Your task to perform on an android device: turn off wifi Image 0: 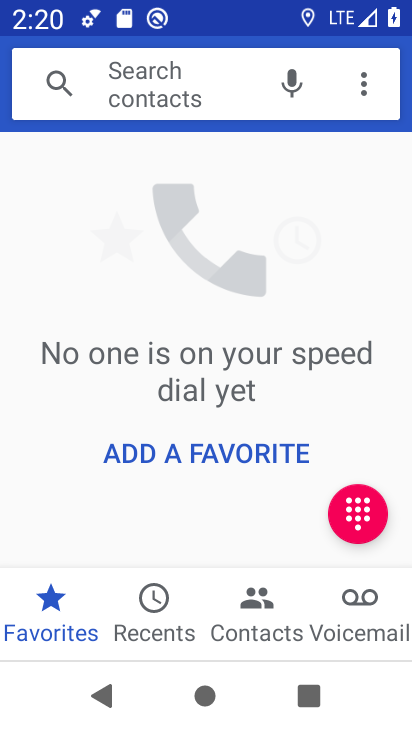
Step 0: press home button
Your task to perform on an android device: turn off wifi Image 1: 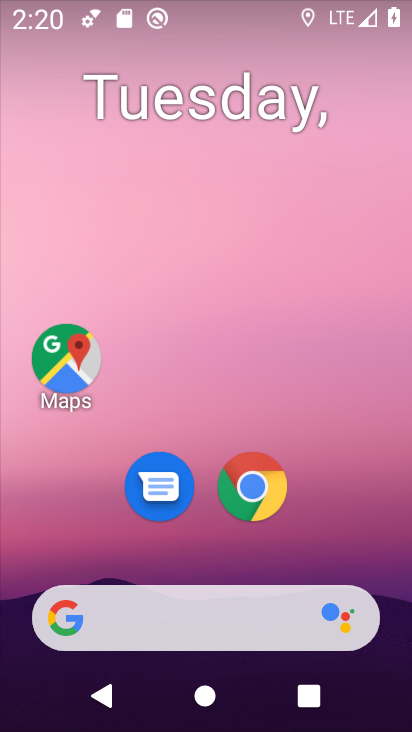
Step 1: drag from (345, 559) to (362, 68)
Your task to perform on an android device: turn off wifi Image 2: 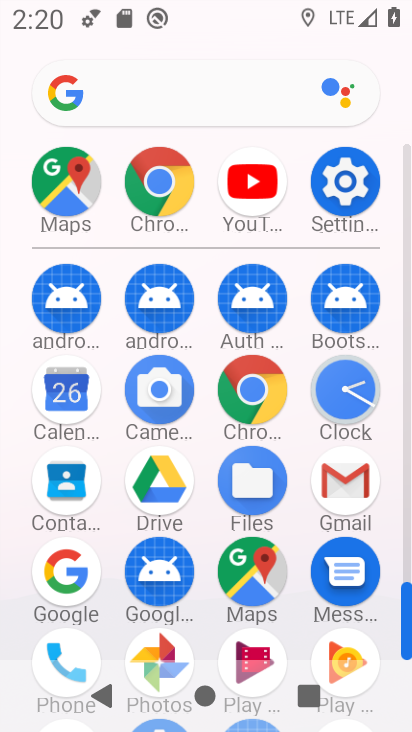
Step 2: click (350, 182)
Your task to perform on an android device: turn off wifi Image 3: 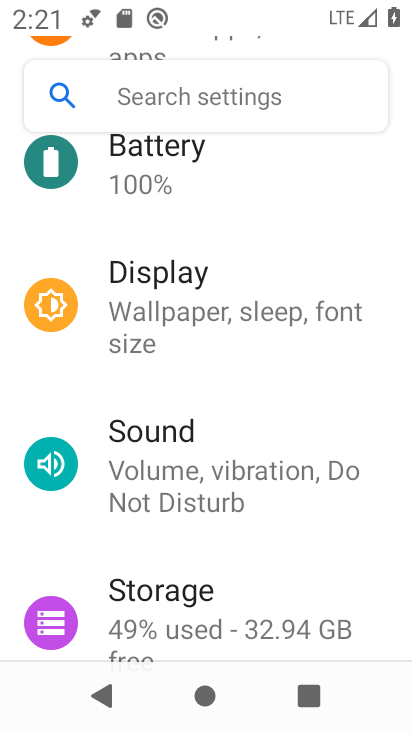
Step 3: drag from (359, 208) to (358, 343)
Your task to perform on an android device: turn off wifi Image 4: 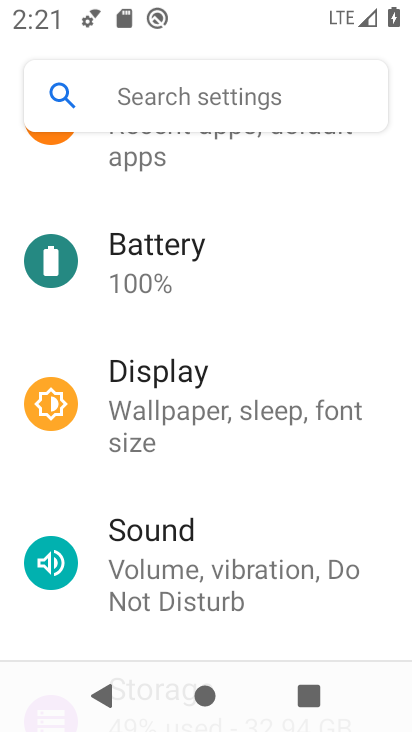
Step 4: drag from (347, 210) to (347, 323)
Your task to perform on an android device: turn off wifi Image 5: 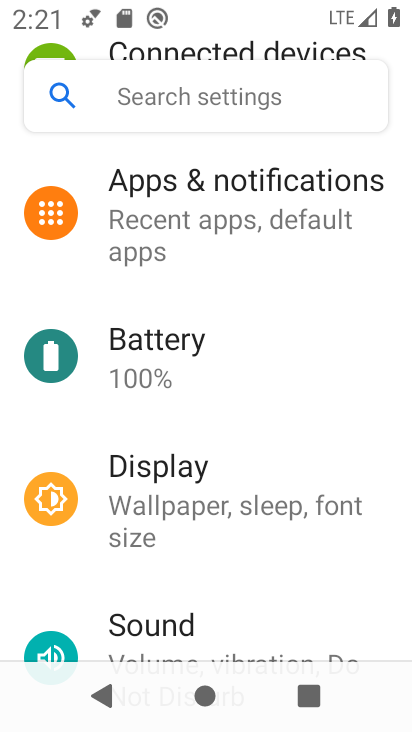
Step 5: drag from (321, 246) to (324, 325)
Your task to perform on an android device: turn off wifi Image 6: 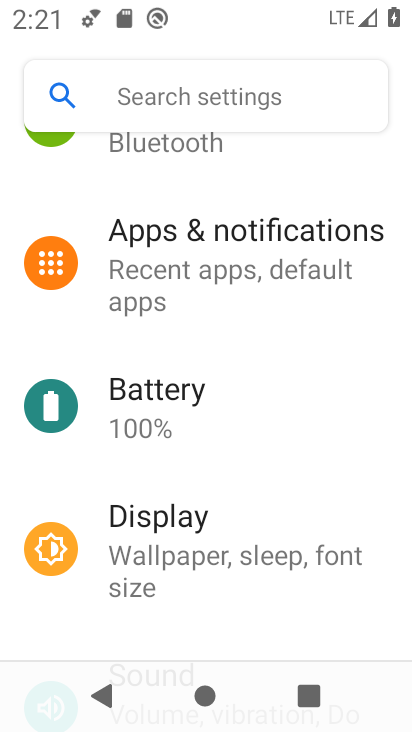
Step 6: drag from (343, 198) to (343, 328)
Your task to perform on an android device: turn off wifi Image 7: 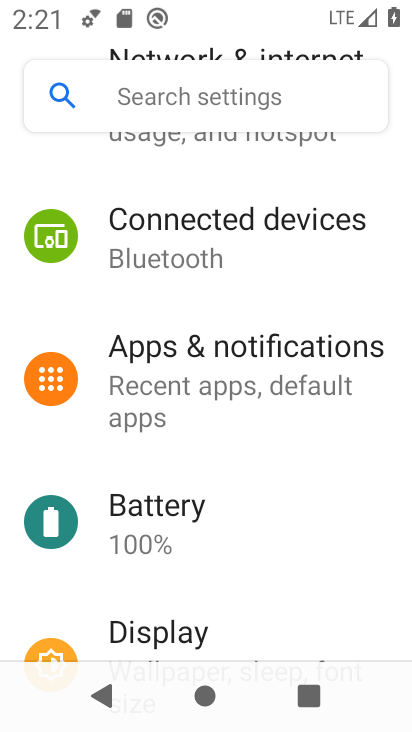
Step 7: drag from (359, 214) to (345, 337)
Your task to perform on an android device: turn off wifi Image 8: 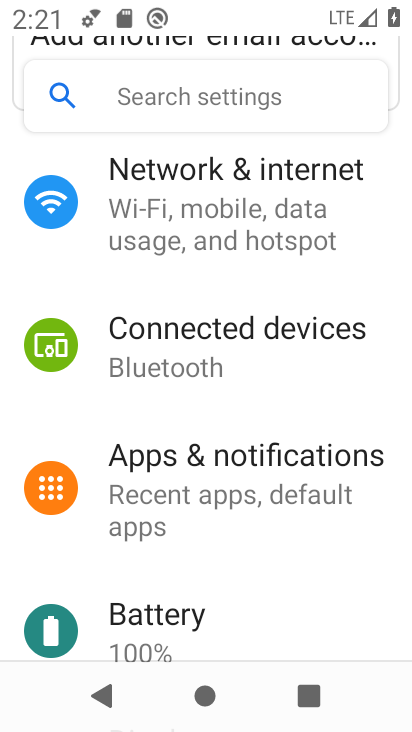
Step 8: drag from (356, 200) to (356, 286)
Your task to perform on an android device: turn off wifi Image 9: 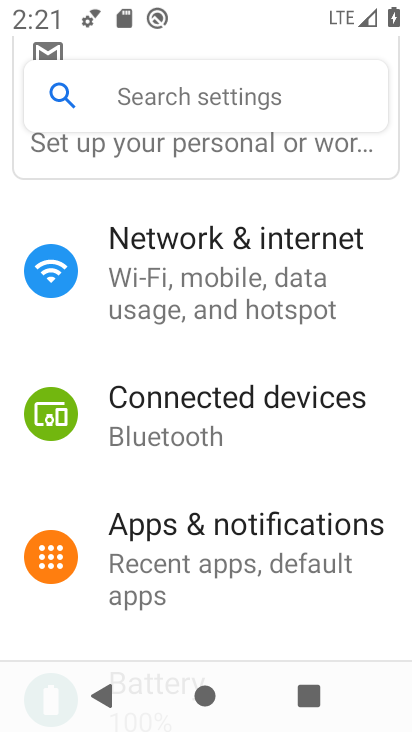
Step 9: click (309, 271)
Your task to perform on an android device: turn off wifi Image 10: 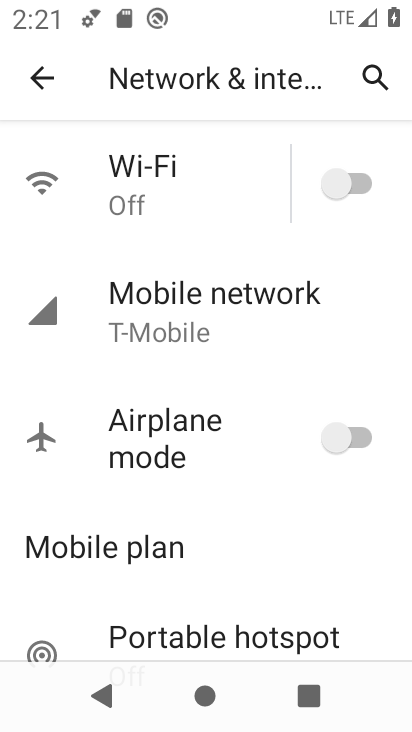
Step 10: task complete